Your task to perform on an android device: What is the news today? Image 0: 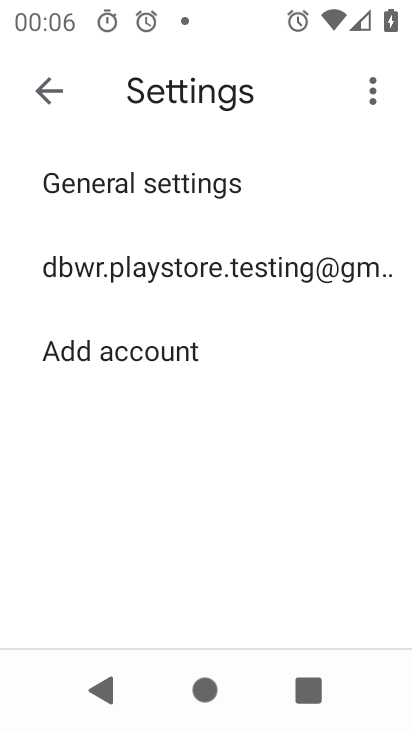
Step 0: press home button
Your task to perform on an android device: What is the news today? Image 1: 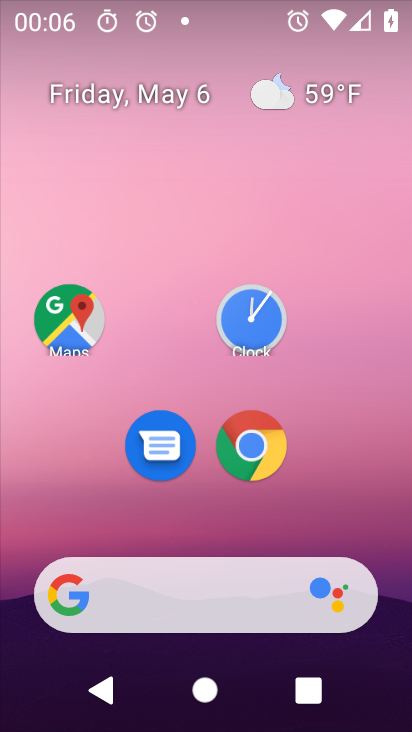
Step 1: task complete